Your task to perform on an android device: Do I have any events this weekend? Image 0: 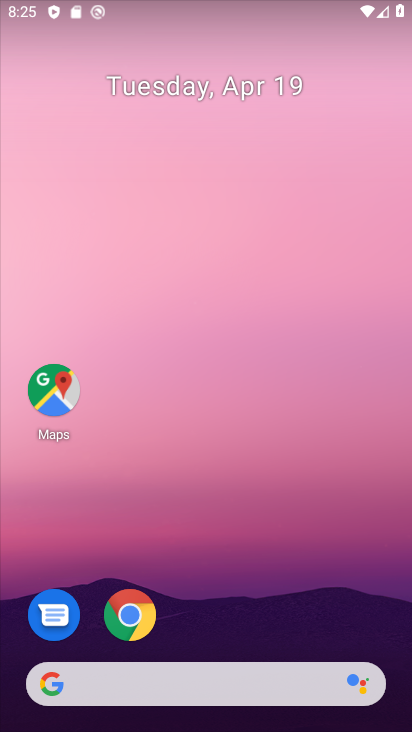
Step 0: drag from (251, 101) to (262, 11)
Your task to perform on an android device: Do I have any events this weekend? Image 1: 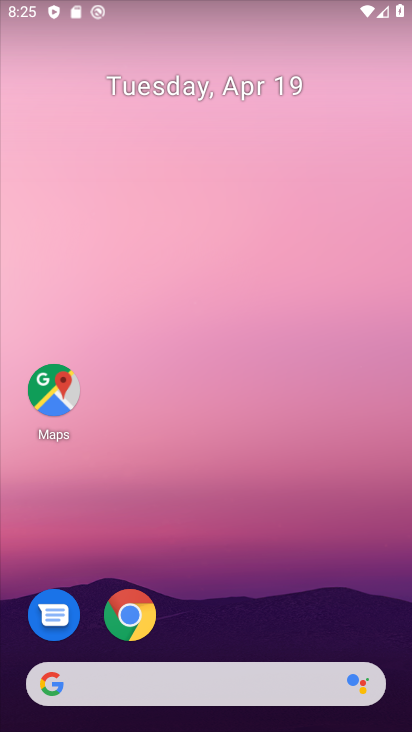
Step 1: drag from (214, 558) to (272, 141)
Your task to perform on an android device: Do I have any events this weekend? Image 2: 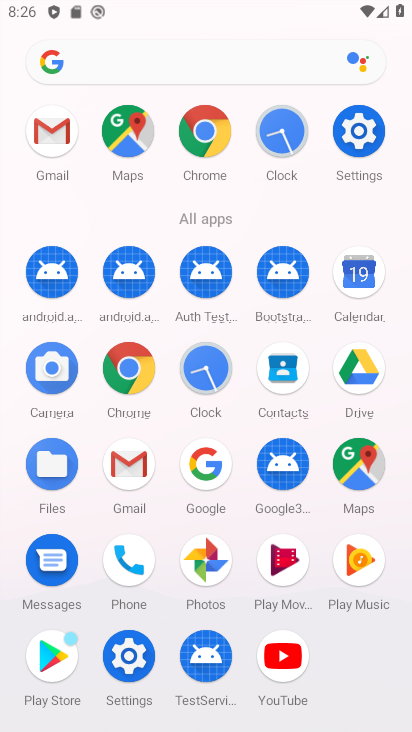
Step 2: click (355, 283)
Your task to perform on an android device: Do I have any events this weekend? Image 3: 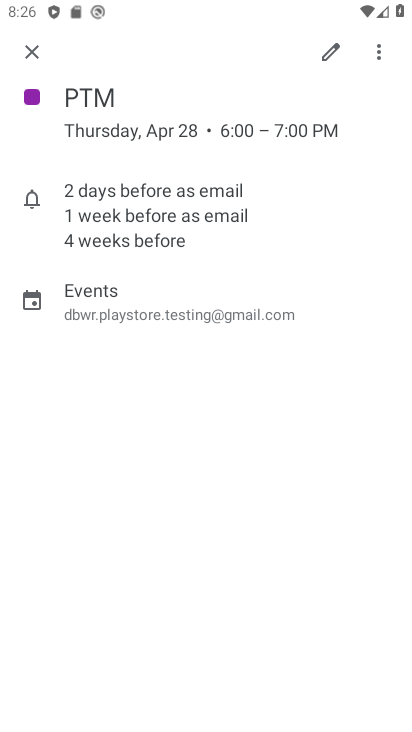
Step 3: click (34, 51)
Your task to perform on an android device: Do I have any events this weekend? Image 4: 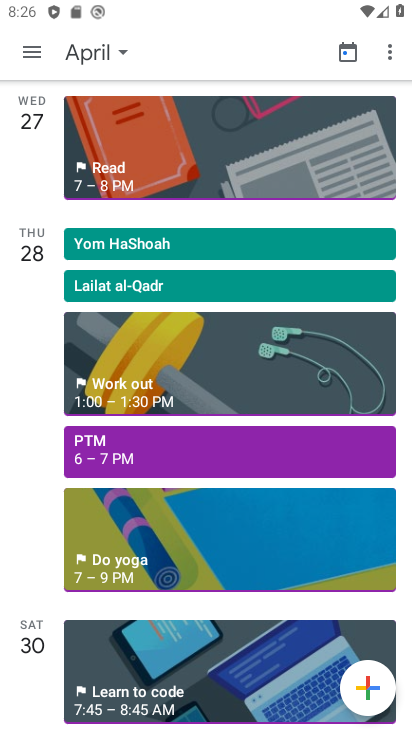
Step 4: click (34, 51)
Your task to perform on an android device: Do I have any events this weekend? Image 5: 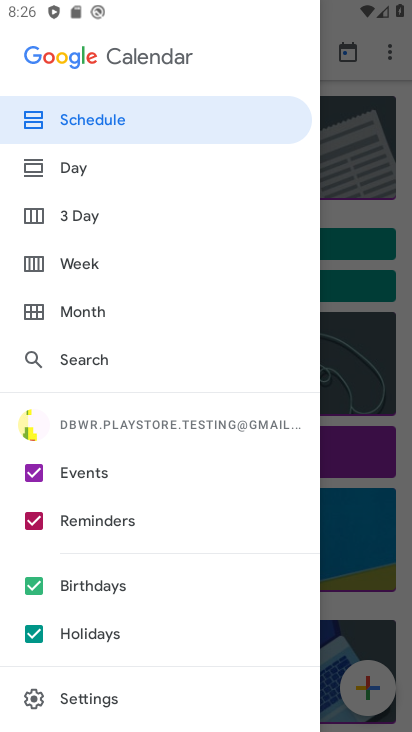
Step 5: click (89, 267)
Your task to perform on an android device: Do I have any events this weekend? Image 6: 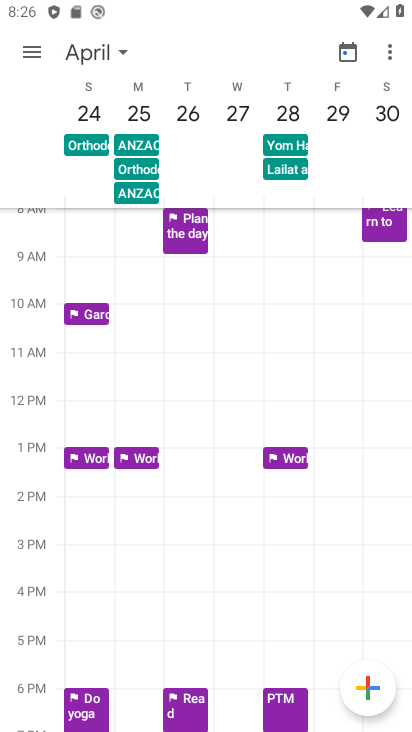
Step 6: click (339, 244)
Your task to perform on an android device: Do I have any events this weekend? Image 7: 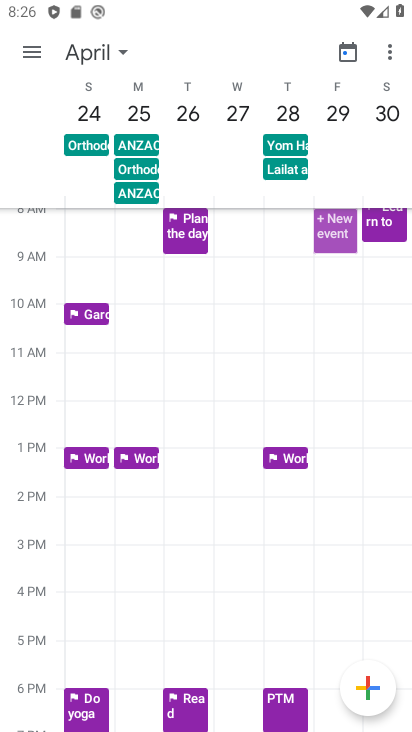
Step 7: click (374, 223)
Your task to perform on an android device: Do I have any events this weekend? Image 8: 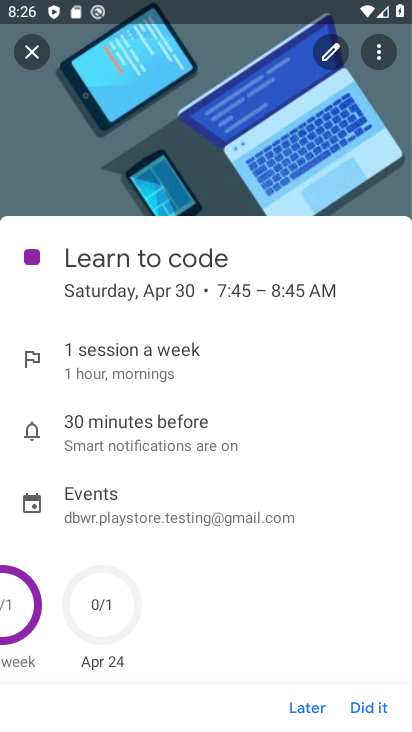
Step 8: task complete